Your task to perform on an android device: Open ESPN.com Image 0: 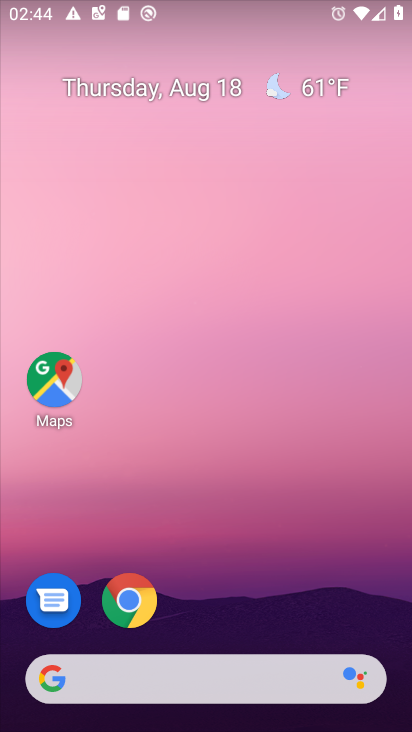
Step 0: press home button
Your task to perform on an android device: Open ESPN.com Image 1: 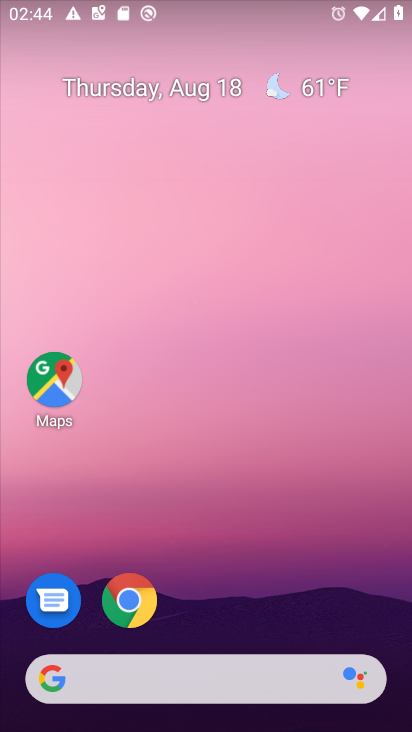
Step 1: click (53, 681)
Your task to perform on an android device: Open ESPN.com Image 2: 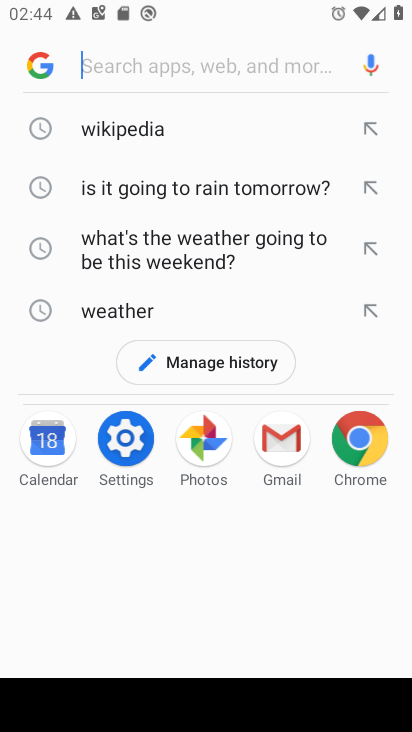
Step 2: type " ESPN.com"
Your task to perform on an android device: Open ESPN.com Image 3: 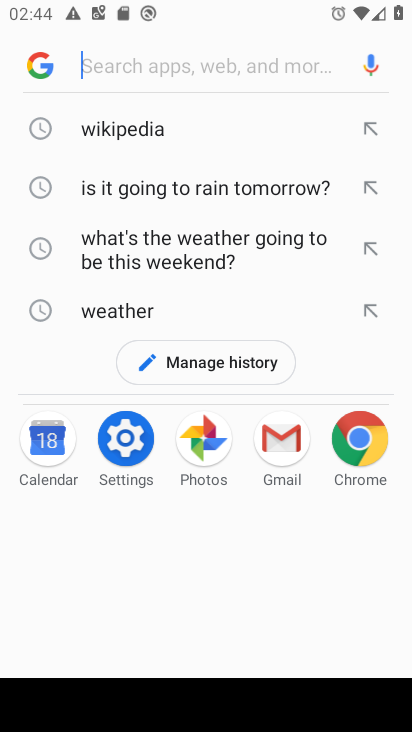
Step 3: click (139, 70)
Your task to perform on an android device: Open ESPN.com Image 4: 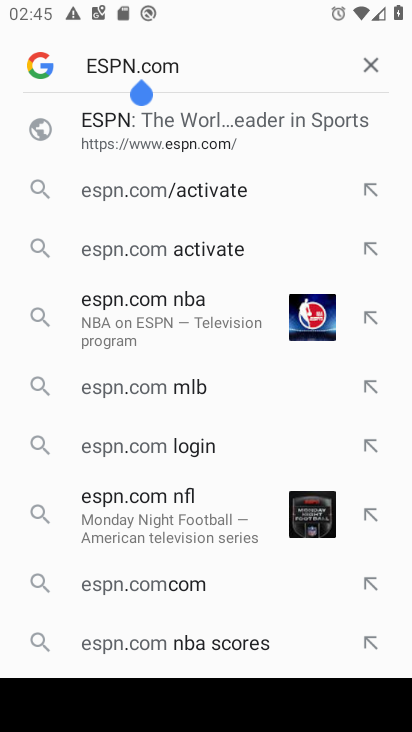
Step 4: press enter
Your task to perform on an android device: Open ESPN.com Image 5: 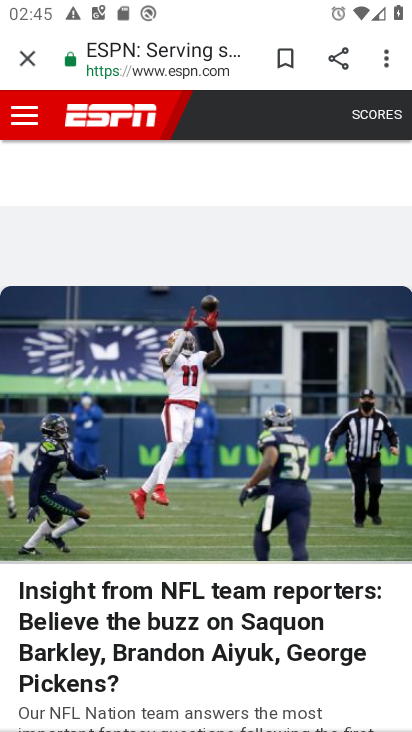
Step 5: task complete